Your task to perform on an android device: turn off sleep mode Image 0: 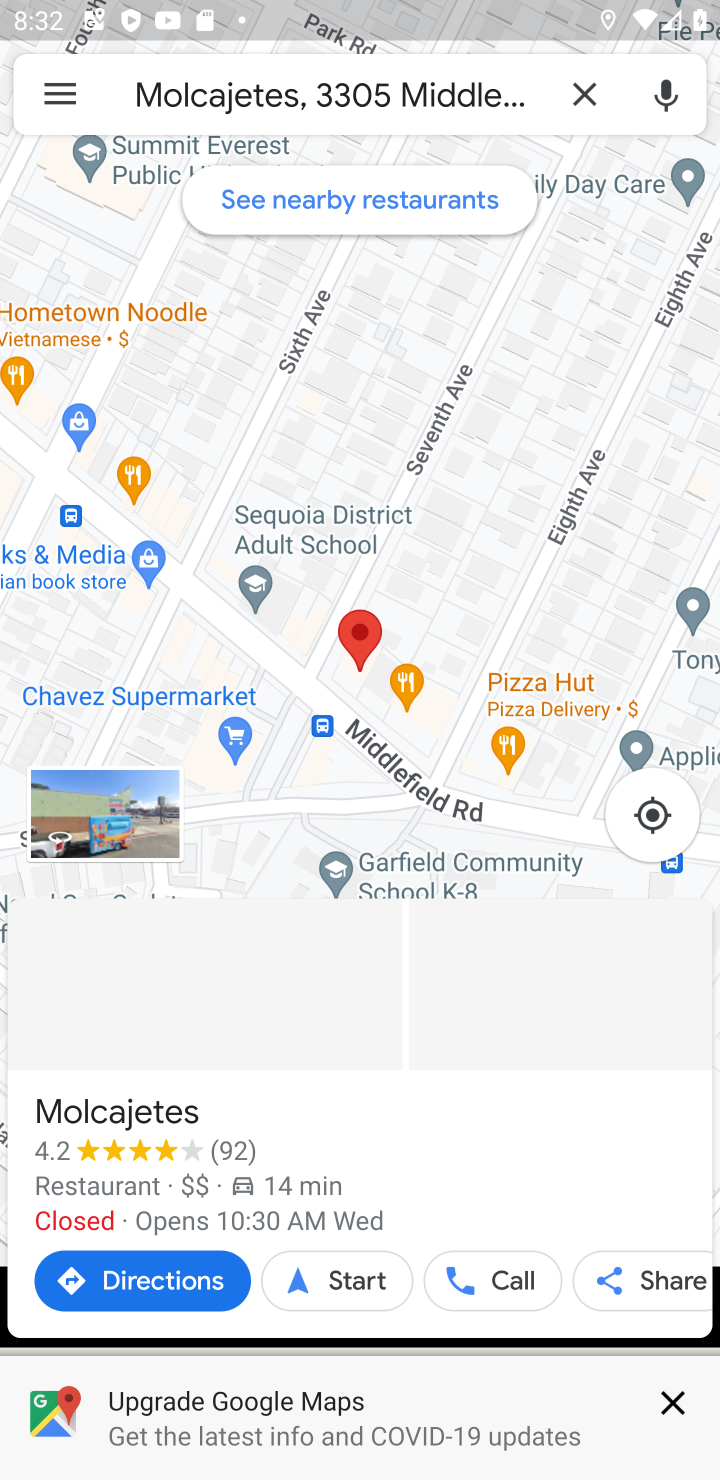
Step 0: press home button
Your task to perform on an android device: turn off sleep mode Image 1: 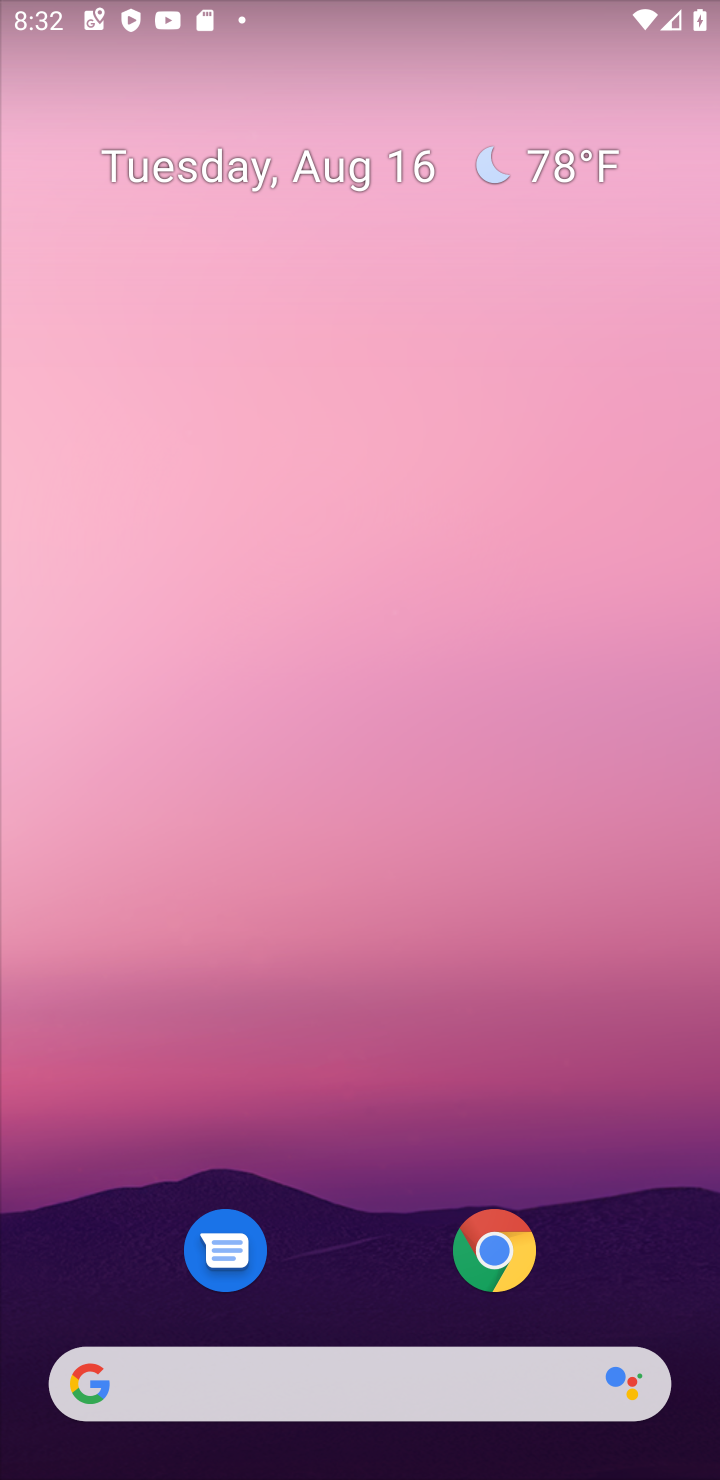
Step 1: drag from (371, 1249) to (352, 156)
Your task to perform on an android device: turn off sleep mode Image 2: 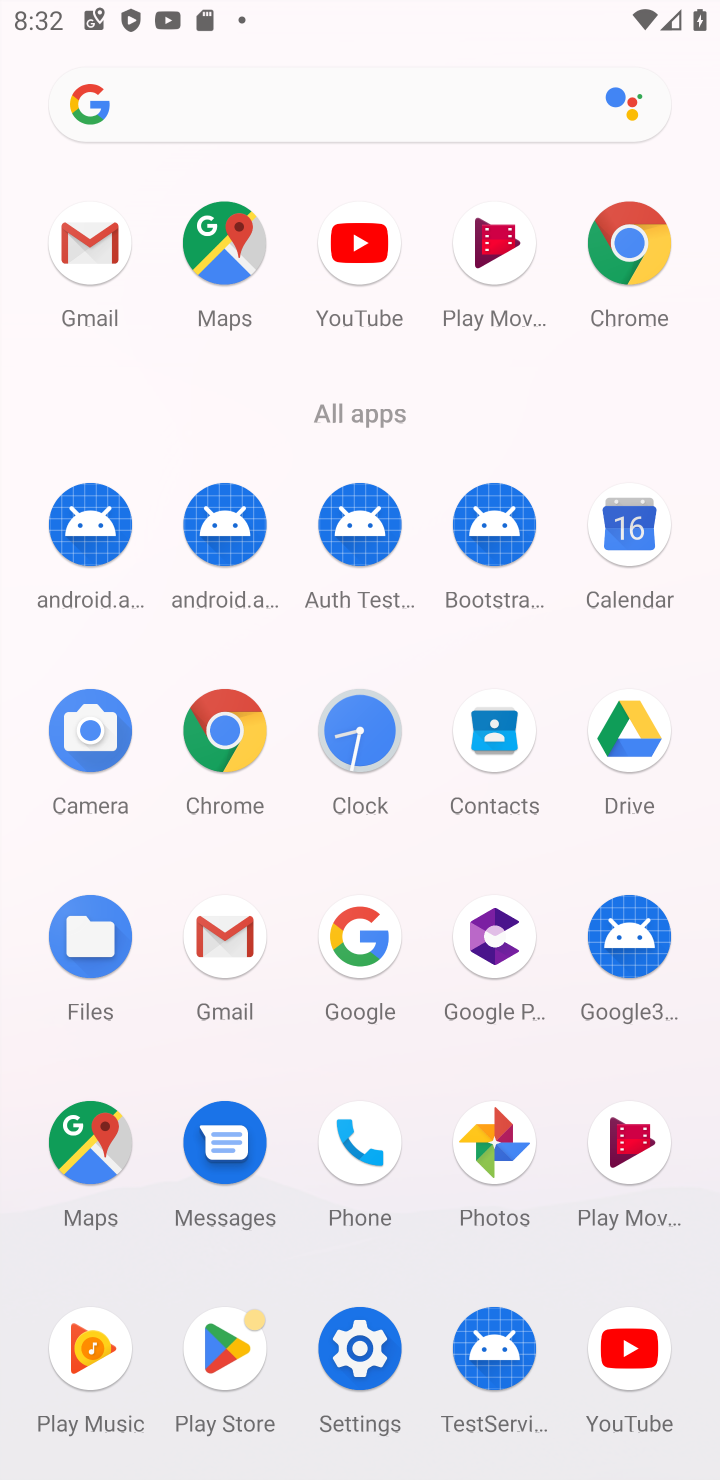
Step 2: click (367, 1353)
Your task to perform on an android device: turn off sleep mode Image 3: 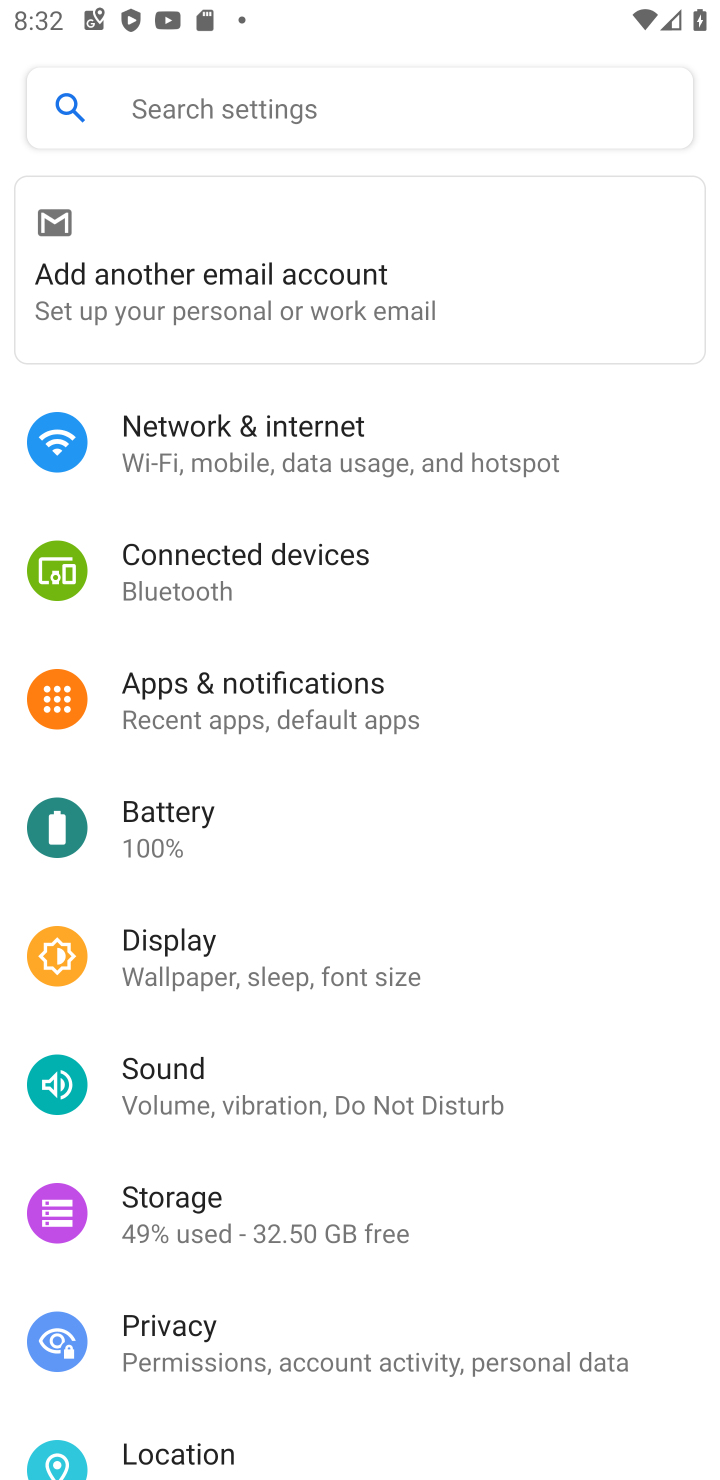
Step 3: task complete